Your task to perform on an android device: change the clock display to show seconds Image 0: 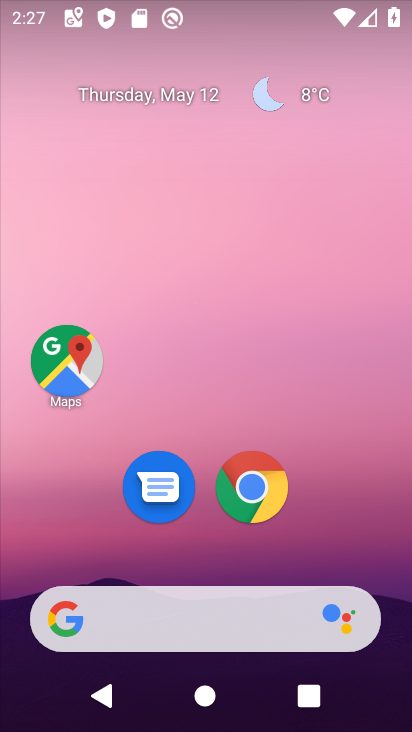
Step 0: drag from (328, 474) to (278, 101)
Your task to perform on an android device: change the clock display to show seconds Image 1: 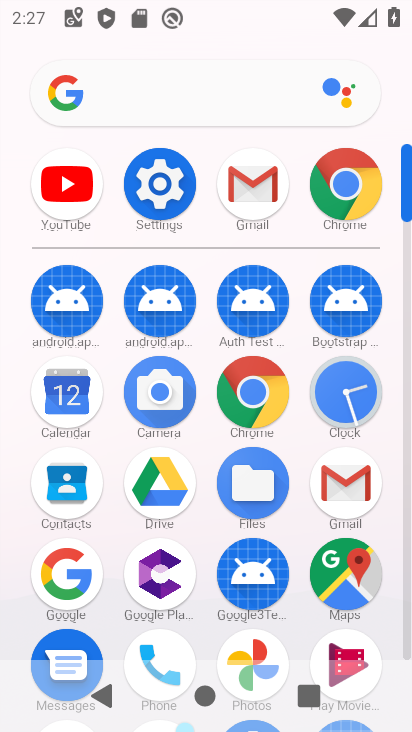
Step 1: click (364, 405)
Your task to perform on an android device: change the clock display to show seconds Image 2: 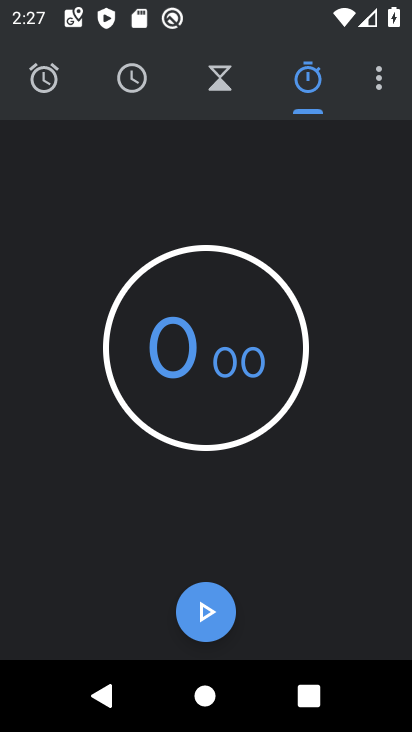
Step 2: click (383, 80)
Your task to perform on an android device: change the clock display to show seconds Image 3: 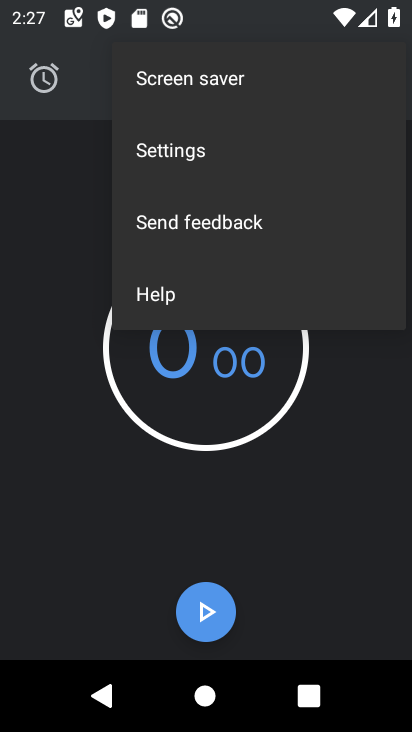
Step 3: click (180, 164)
Your task to perform on an android device: change the clock display to show seconds Image 4: 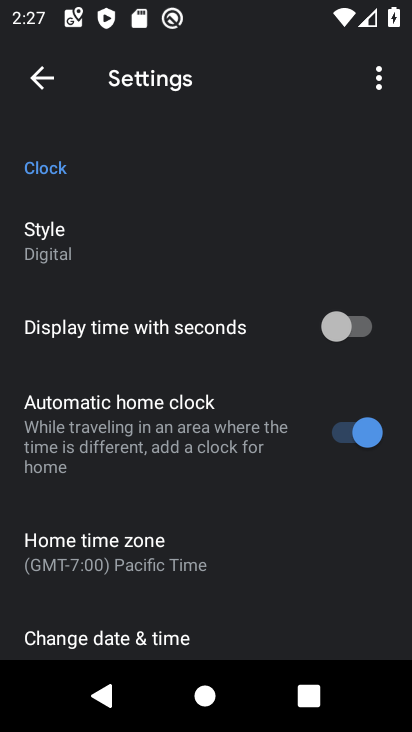
Step 4: click (333, 319)
Your task to perform on an android device: change the clock display to show seconds Image 5: 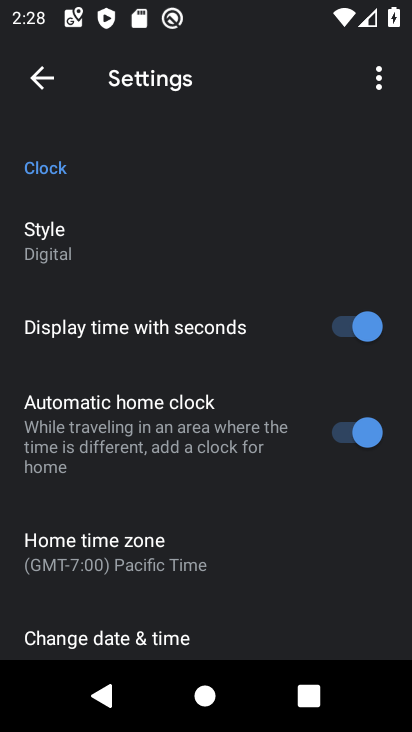
Step 5: task complete